Your task to perform on an android device: Go to Google Image 0: 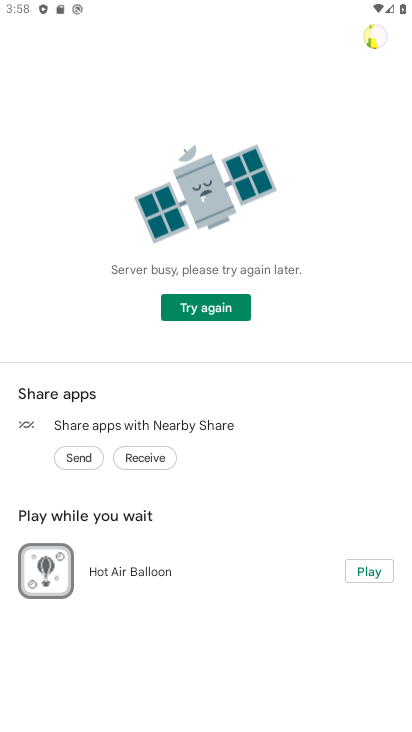
Step 0: press home button
Your task to perform on an android device: Go to Google Image 1: 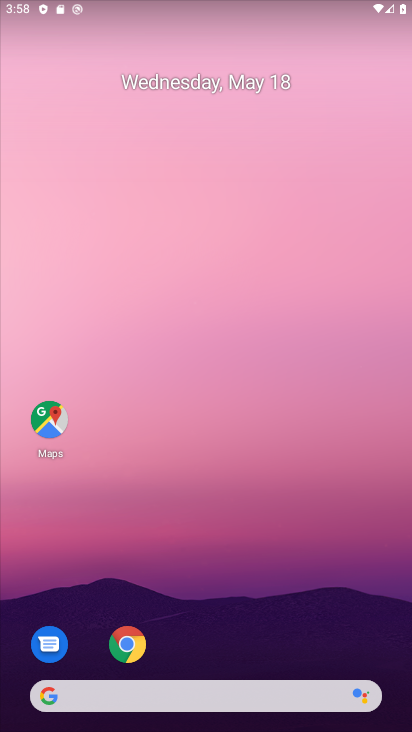
Step 1: click (198, 686)
Your task to perform on an android device: Go to Google Image 2: 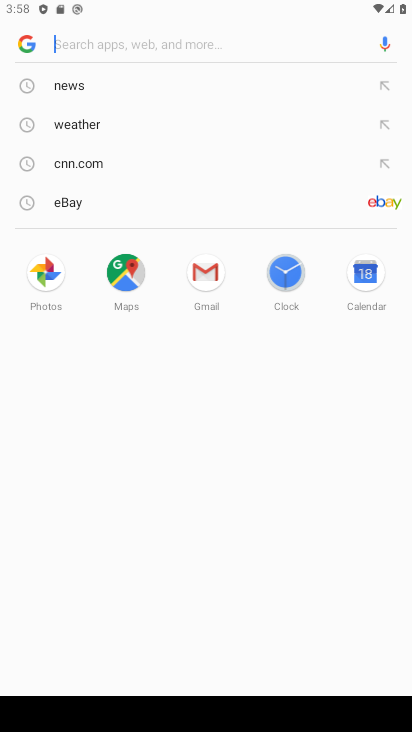
Step 2: task complete